Your task to perform on an android device: Open the map Image 0: 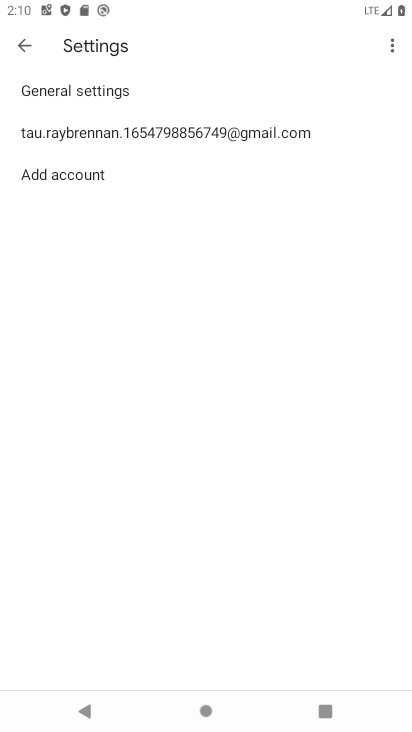
Step 0: press home button
Your task to perform on an android device: Open the map Image 1: 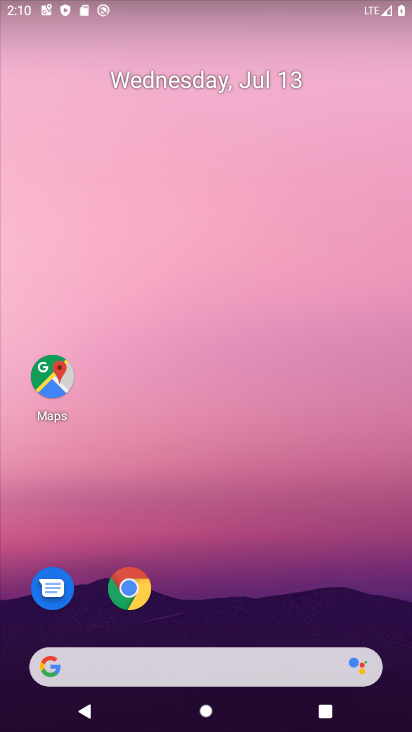
Step 1: click (36, 382)
Your task to perform on an android device: Open the map Image 2: 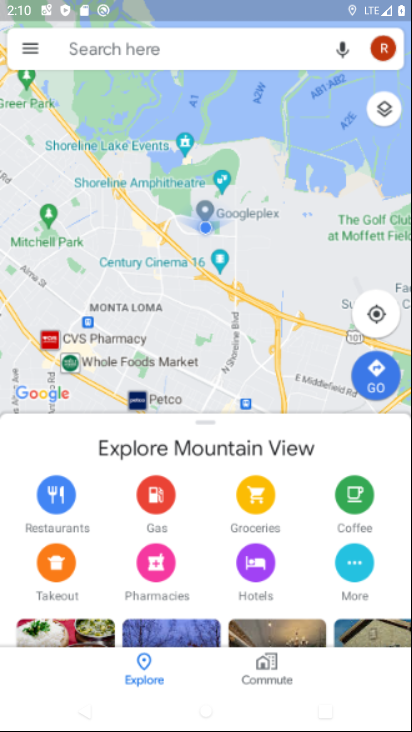
Step 2: task complete